Your task to perform on an android device: search for starred emails in the gmail app Image 0: 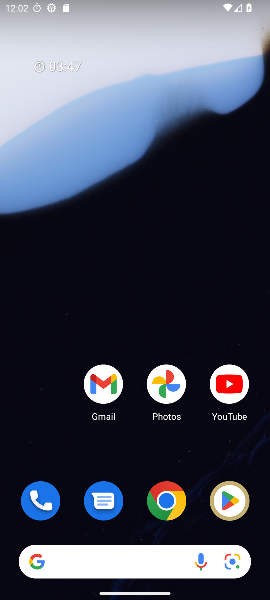
Step 0: click (102, 402)
Your task to perform on an android device: search for starred emails in the gmail app Image 1: 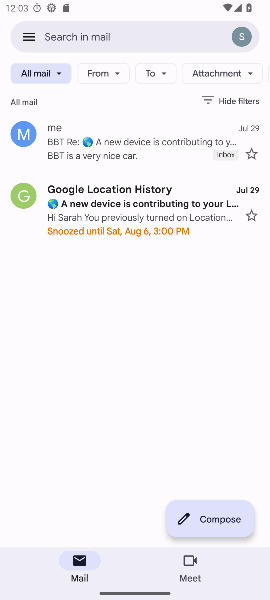
Step 1: click (31, 47)
Your task to perform on an android device: search for starred emails in the gmail app Image 2: 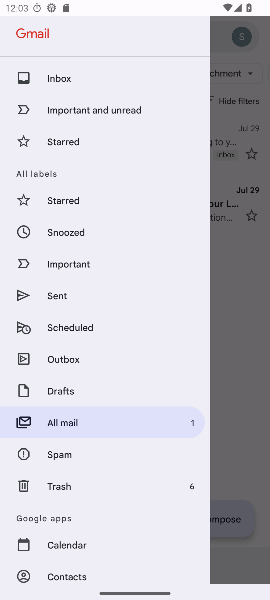
Step 2: click (55, 194)
Your task to perform on an android device: search for starred emails in the gmail app Image 3: 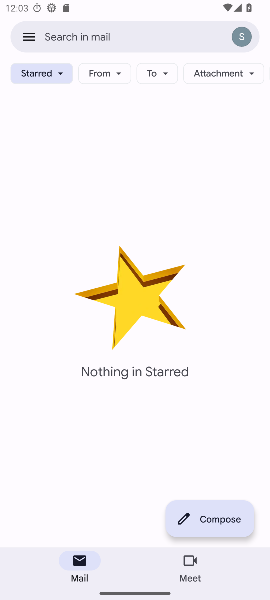
Step 3: task complete